Your task to perform on an android device: turn on showing notifications on the lock screen Image 0: 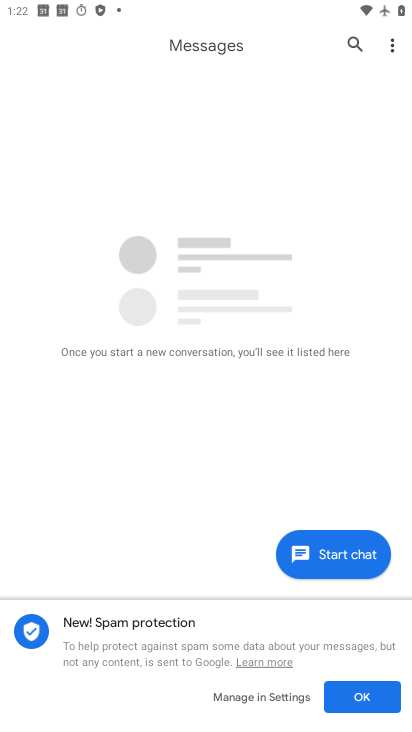
Step 0: press home button
Your task to perform on an android device: turn on showing notifications on the lock screen Image 1: 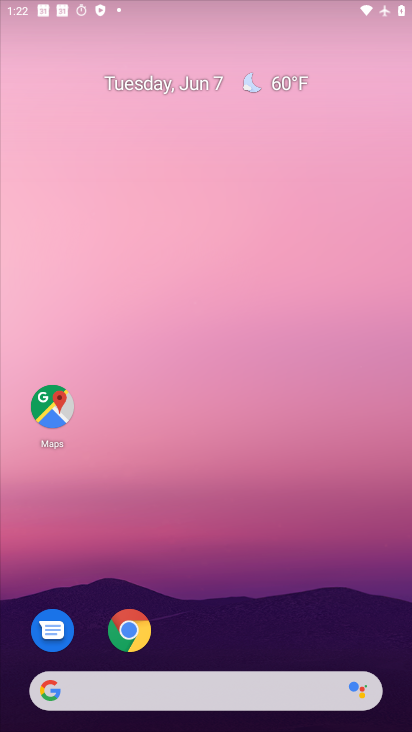
Step 1: drag from (370, 608) to (335, 82)
Your task to perform on an android device: turn on showing notifications on the lock screen Image 2: 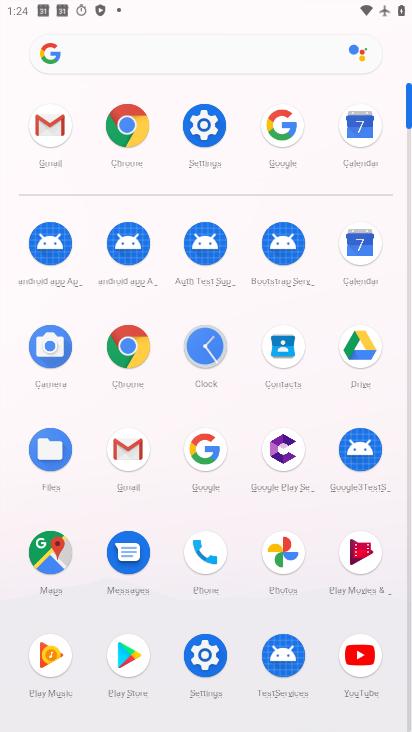
Step 2: click (199, 148)
Your task to perform on an android device: turn on showing notifications on the lock screen Image 3: 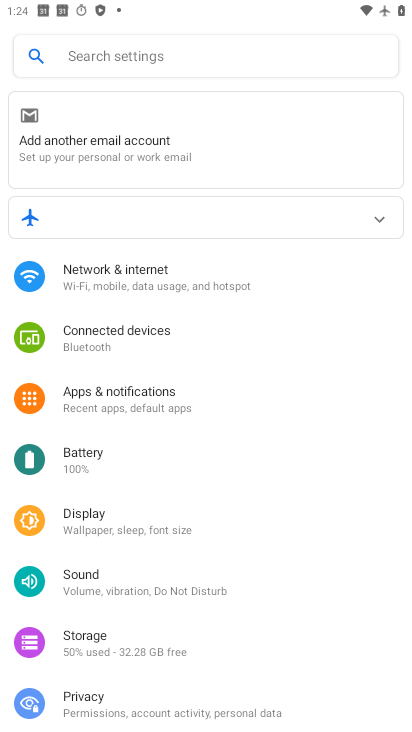
Step 3: drag from (97, 703) to (165, 292)
Your task to perform on an android device: turn on showing notifications on the lock screen Image 4: 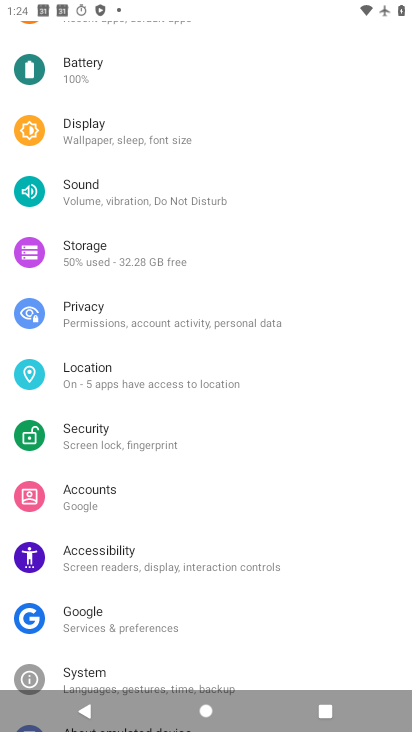
Step 4: click (101, 391)
Your task to perform on an android device: turn on showing notifications on the lock screen Image 5: 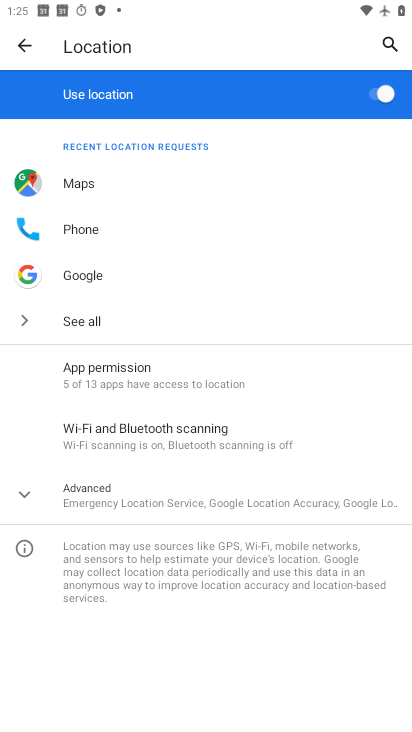
Step 5: click (132, 497)
Your task to perform on an android device: turn on showing notifications on the lock screen Image 6: 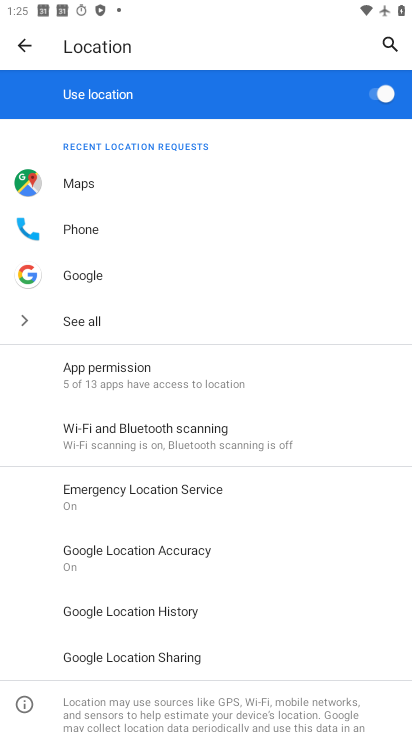
Step 6: task complete